Your task to perform on an android device: create a new album in the google photos Image 0: 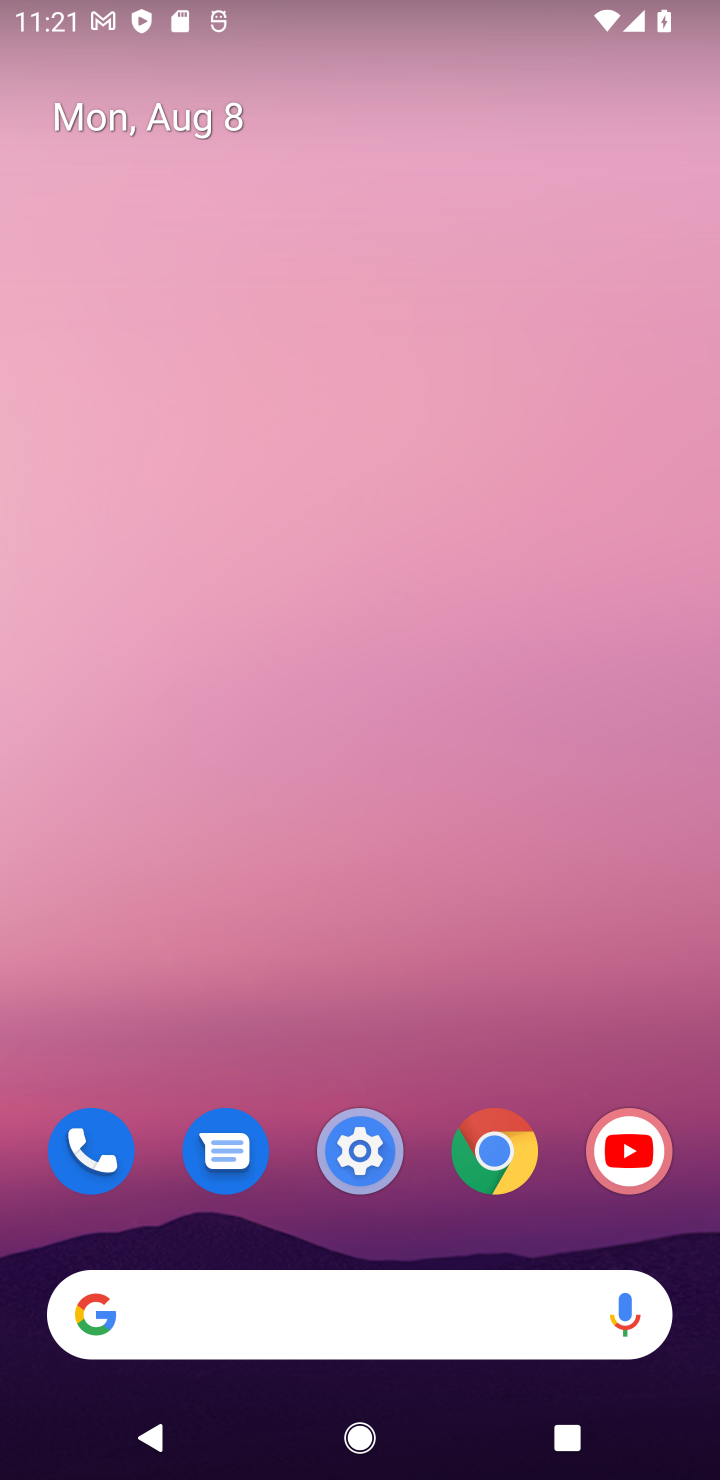
Step 0: drag from (303, 1171) to (286, 440)
Your task to perform on an android device: create a new album in the google photos Image 1: 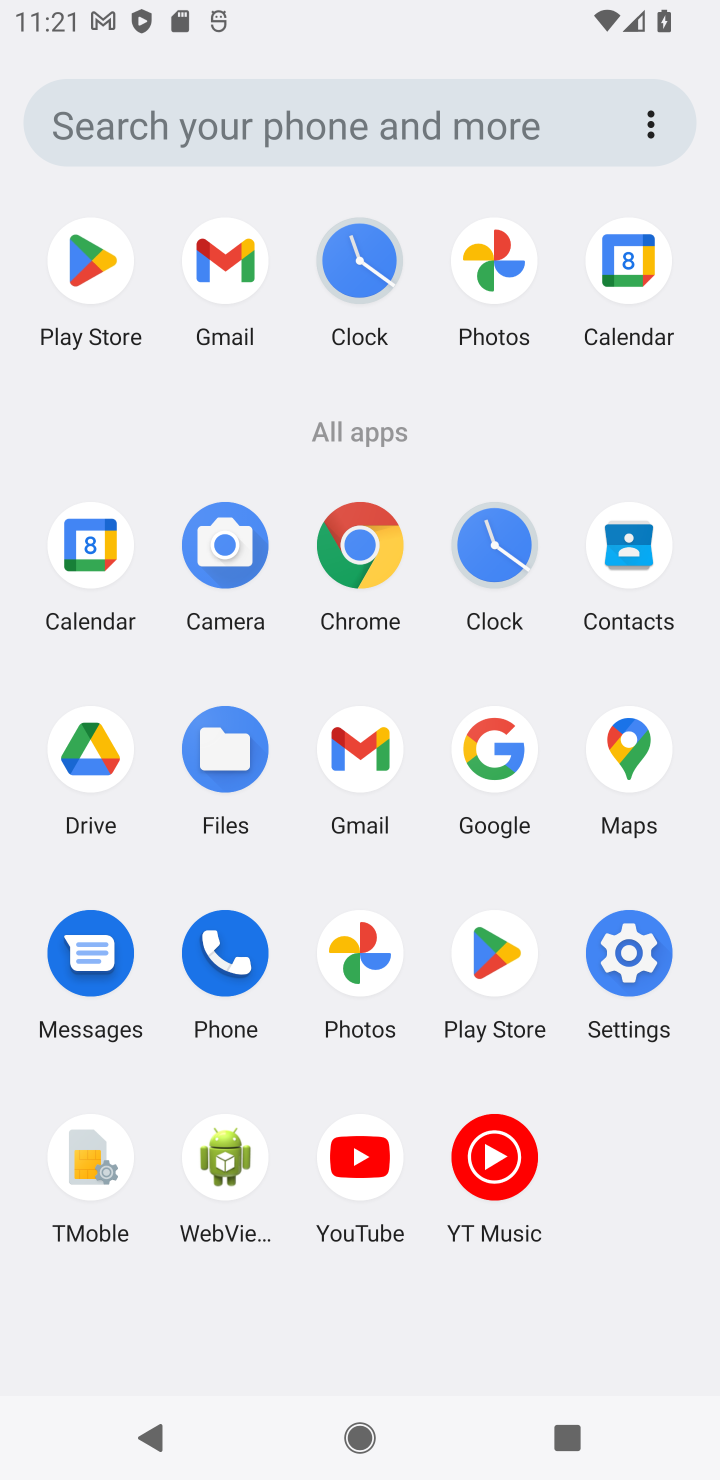
Step 1: click (360, 961)
Your task to perform on an android device: create a new album in the google photos Image 2: 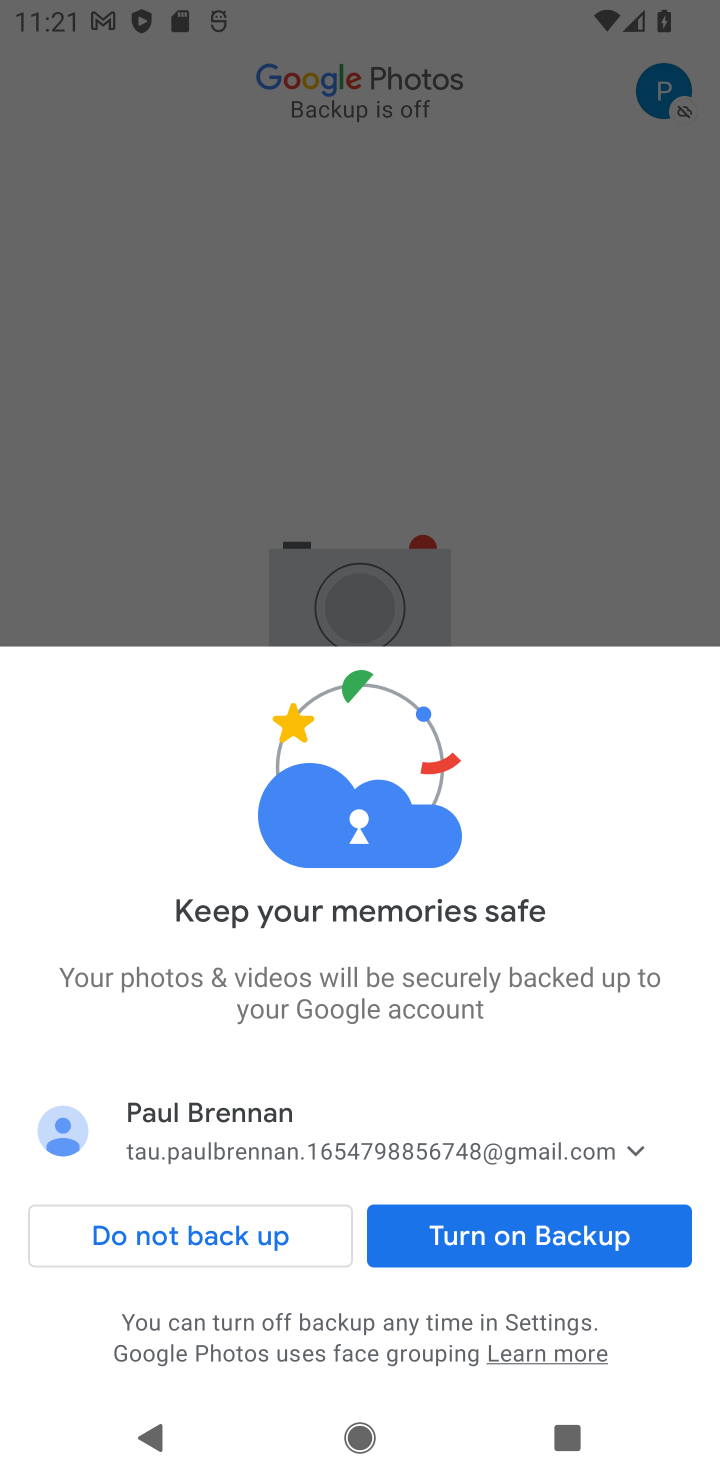
Step 2: click (497, 1233)
Your task to perform on an android device: create a new album in the google photos Image 3: 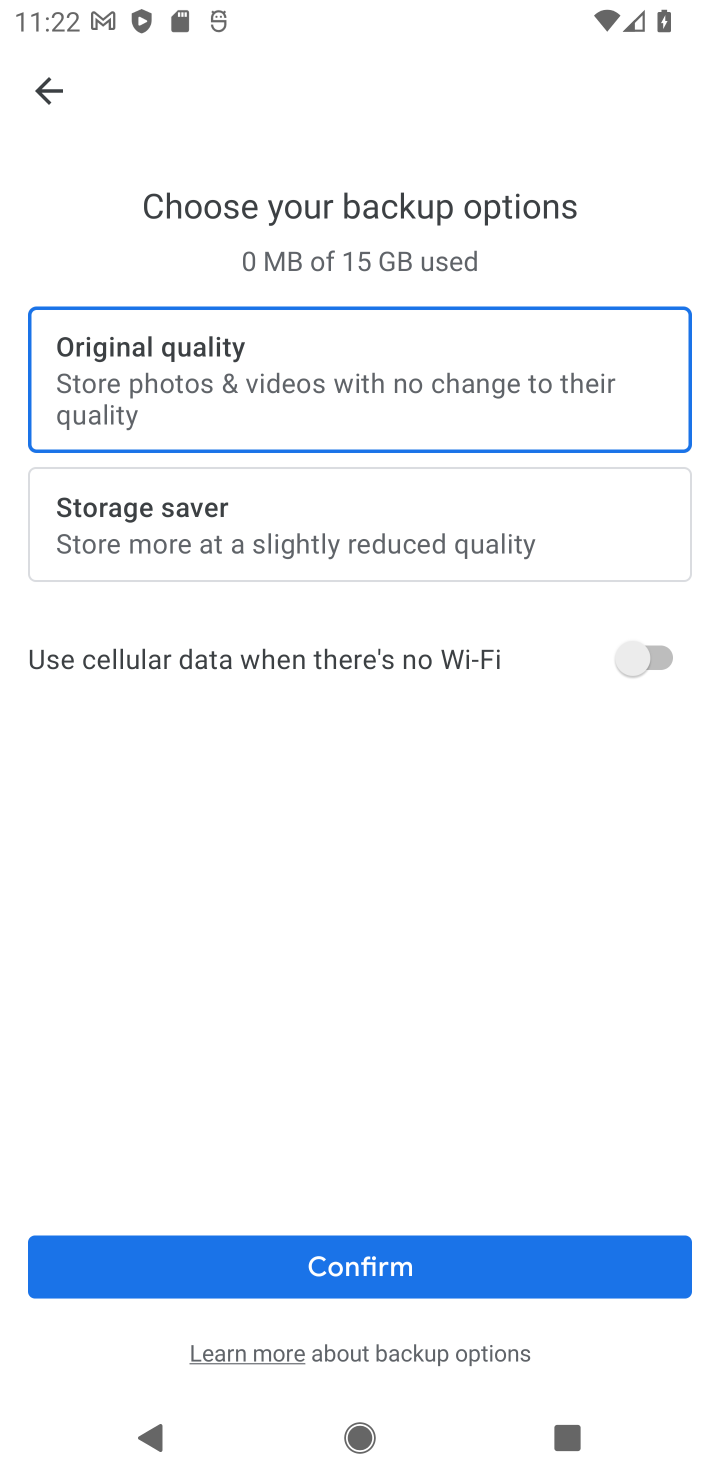
Step 3: click (376, 1268)
Your task to perform on an android device: create a new album in the google photos Image 4: 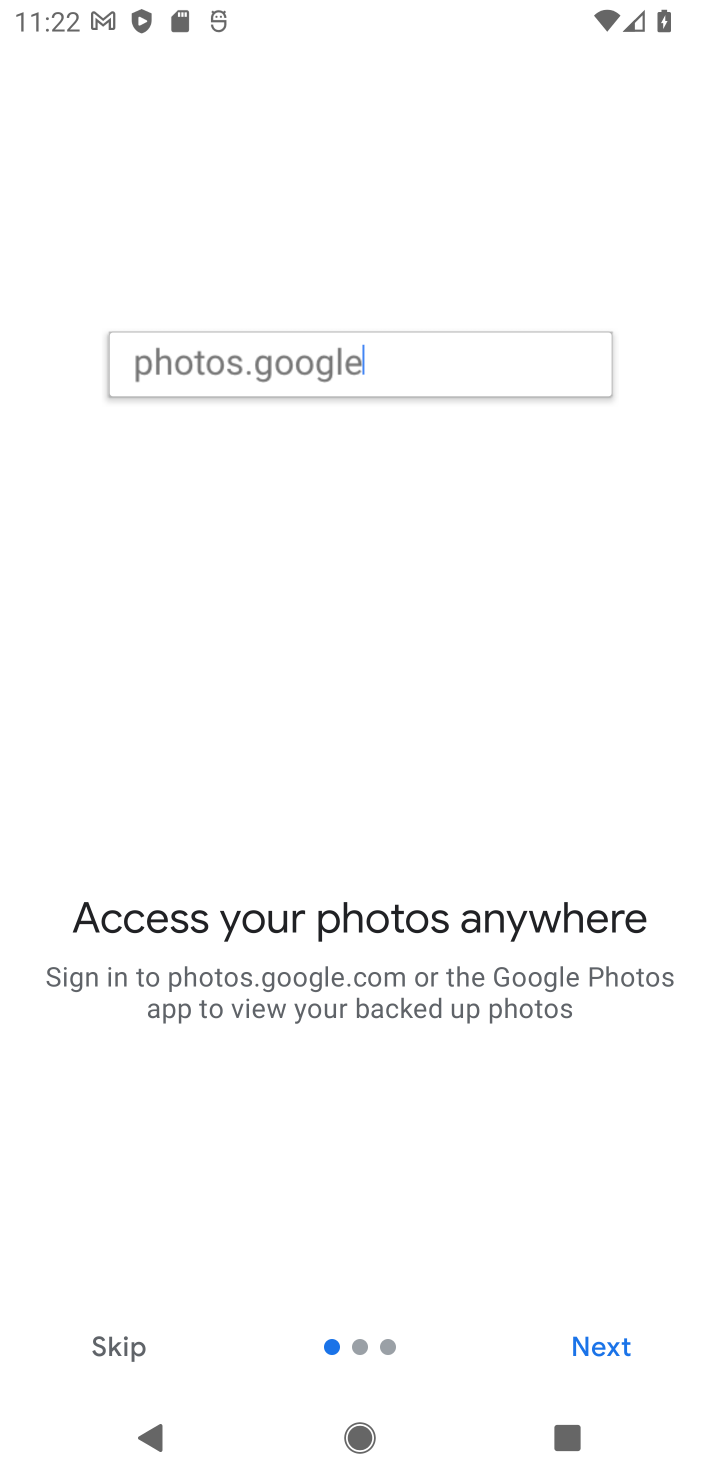
Step 4: click (577, 1349)
Your task to perform on an android device: create a new album in the google photos Image 5: 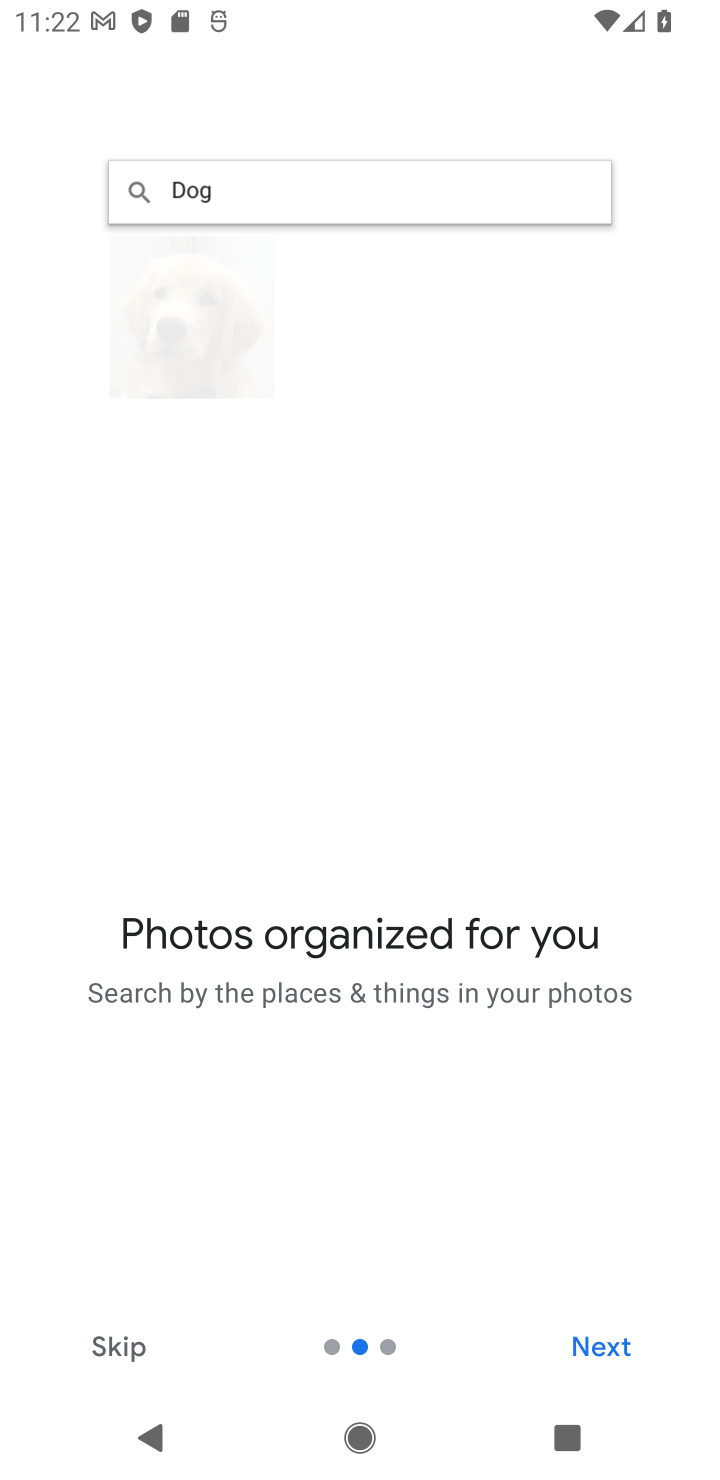
Step 5: click (577, 1349)
Your task to perform on an android device: create a new album in the google photos Image 6: 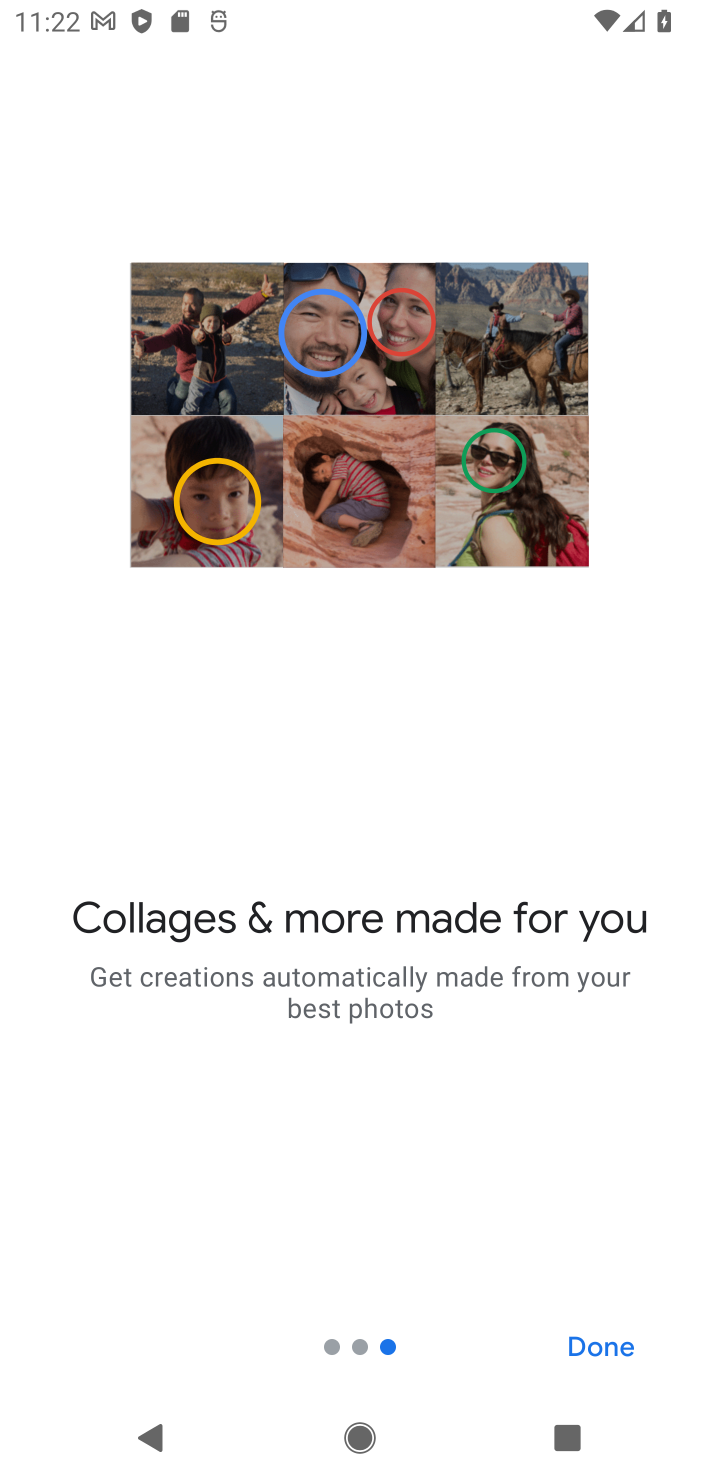
Step 6: click (577, 1349)
Your task to perform on an android device: create a new album in the google photos Image 7: 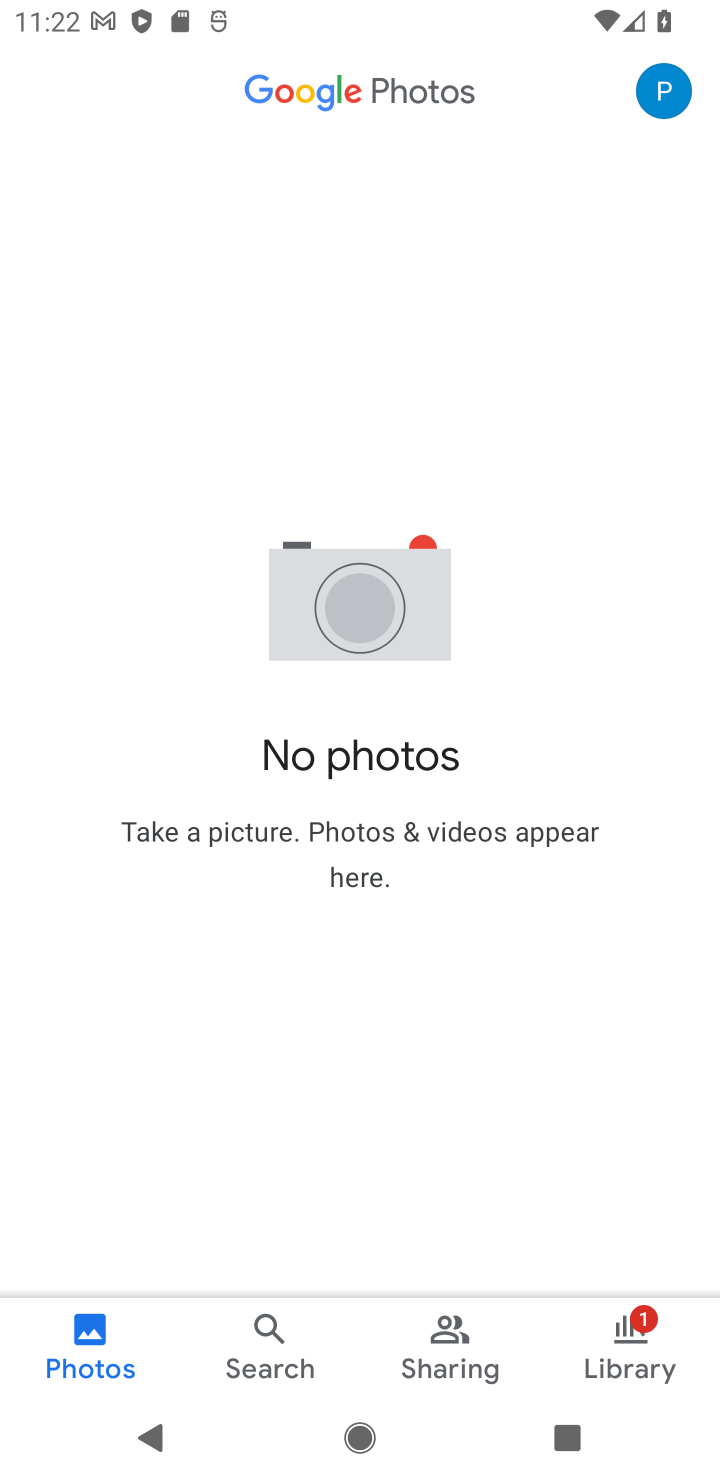
Step 7: task complete